Your task to perform on an android device: change your default location settings in chrome Image 0: 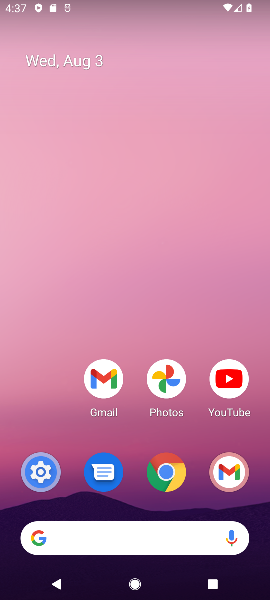
Step 0: drag from (75, 420) to (86, 56)
Your task to perform on an android device: change your default location settings in chrome Image 1: 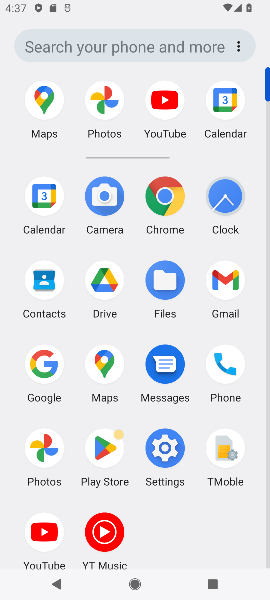
Step 1: click (164, 198)
Your task to perform on an android device: change your default location settings in chrome Image 2: 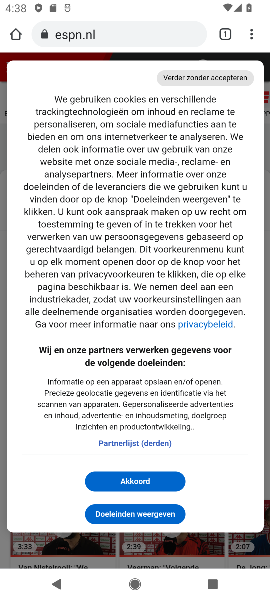
Step 2: drag from (249, 35) to (128, 483)
Your task to perform on an android device: change your default location settings in chrome Image 3: 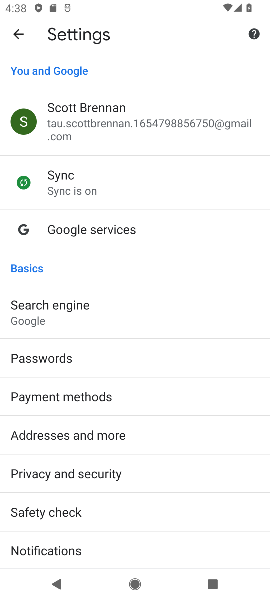
Step 3: drag from (134, 547) to (182, 226)
Your task to perform on an android device: change your default location settings in chrome Image 4: 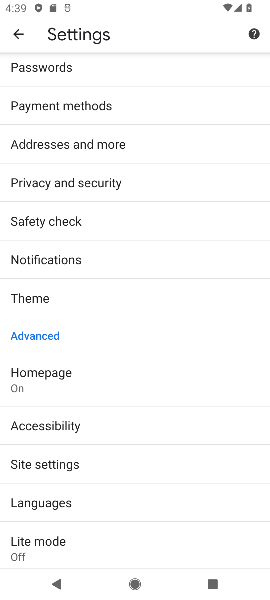
Step 4: drag from (209, 493) to (212, 307)
Your task to perform on an android device: change your default location settings in chrome Image 5: 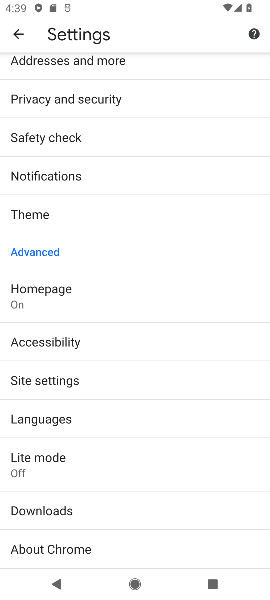
Step 5: click (38, 385)
Your task to perform on an android device: change your default location settings in chrome Image 6: 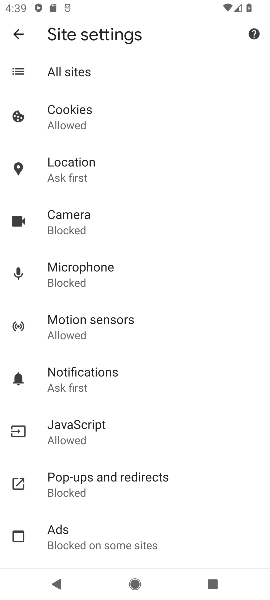
Step 6: click (69, 170)
Your task to perform on an android device: change your default location settings in chrome Image 7: 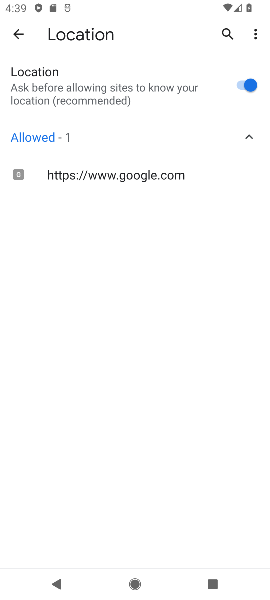
Step 7: click (251, 88)
Your task to perform on an android device: change your default location settings in chrome Image 8: 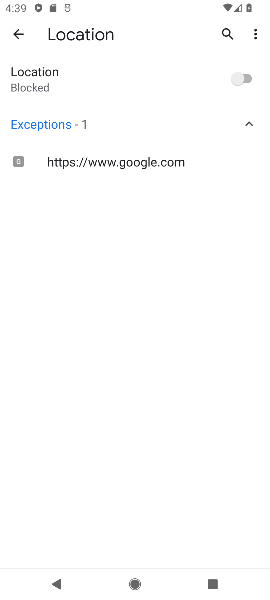
Step 8: task complete